Your task to perform on an android device: Play the last video I watched on Youtube Image 0: 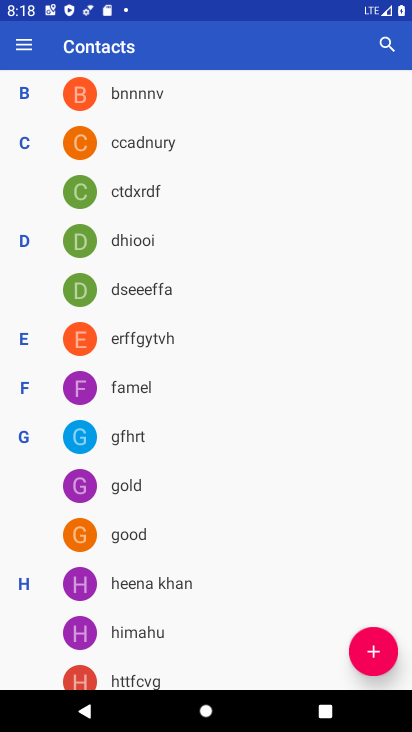
Step 0: press home button
Your task to perform on an android device: Play the last video I watched on Youtube Image 1: 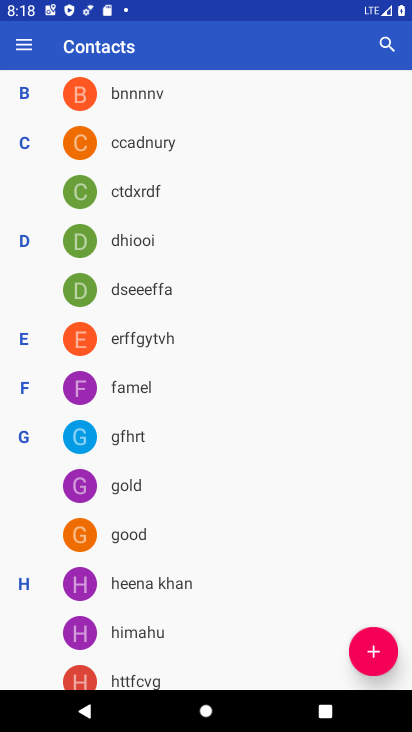
Step 1: press home button
Your task to perform on an android device: Play the last video I watched on Youtube Image 2: 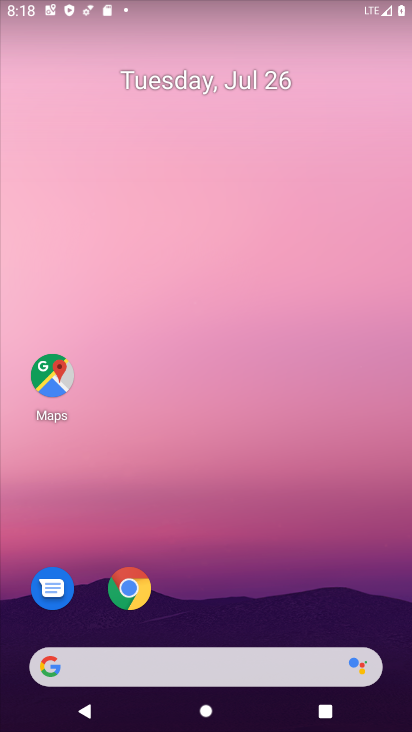
Step 2: drag from (262, 615) to (219, 97)
Your task to perform on an android device: Play the last video I watched on Youtube Image 3: 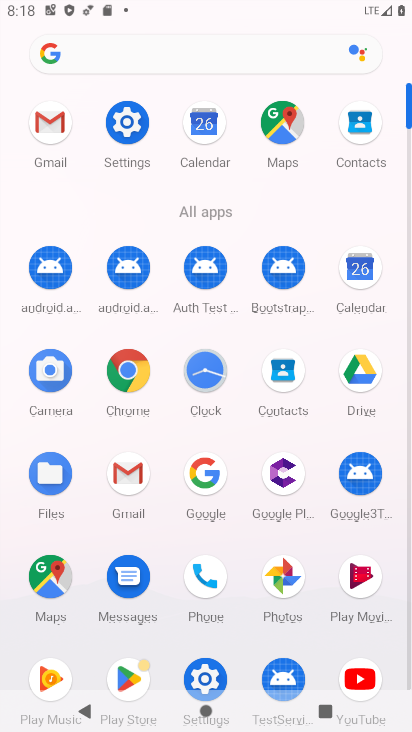
Step 3: click (360, 669)
Your task to perform on an android device: Play the last video I watched on Youtube Image 4: 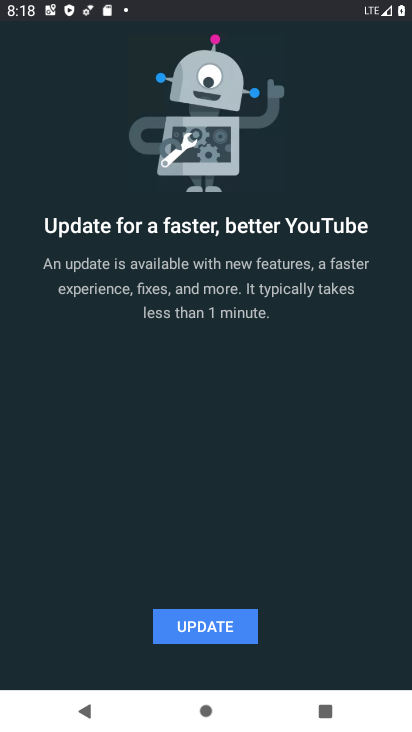
Step 4: click (231, 631)
Your task to perform on an android device: Play the last video I watched on Youtube Image 5: 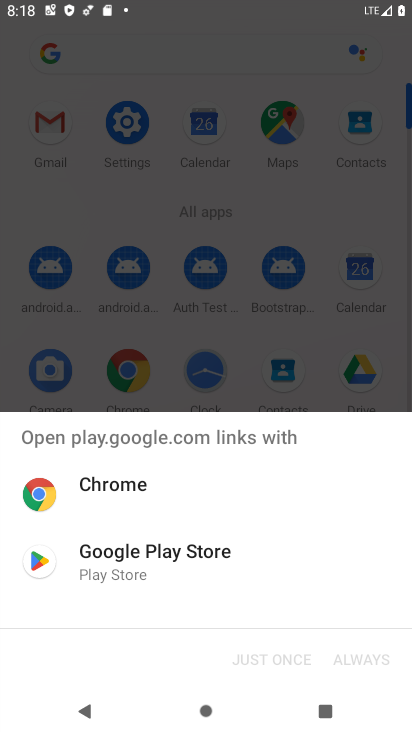
Step 5: click (139, 548)
Your task to perform on an android device: Play the last video I watched on Youtube Image 6: 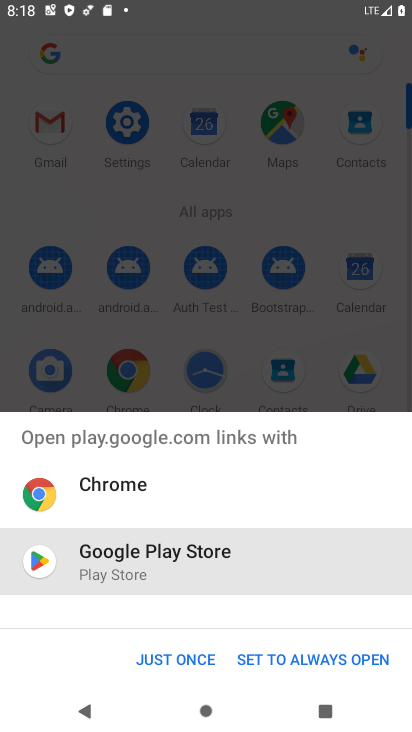
Step 6: click (193, 661)
Your task to perform on an android device: Play the last video I watched on Youtube Image 7: 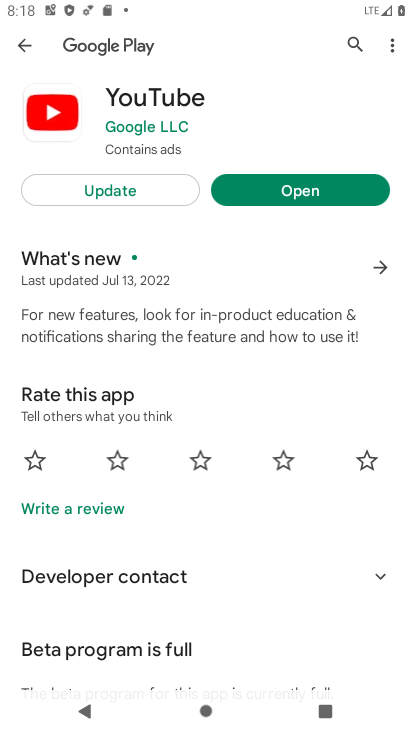
Step 7: click (124, 191)
Your task to perform on an android device: Play the last video I watched on Youtube Image 8: 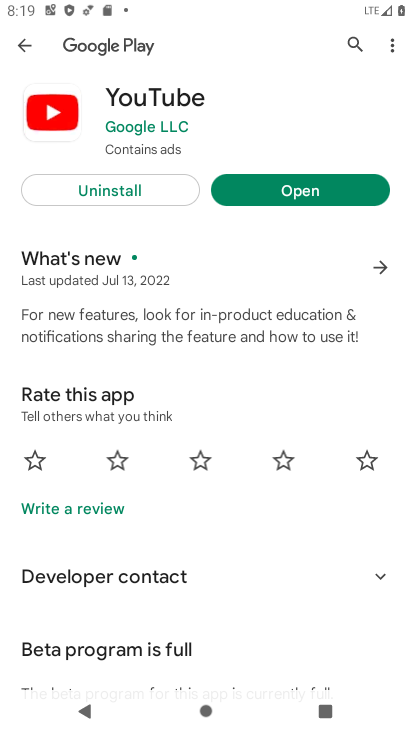
Step 8: click (266, 185)
Your task to perform on an android device: Play the last video I watched on Youtube Image 9: 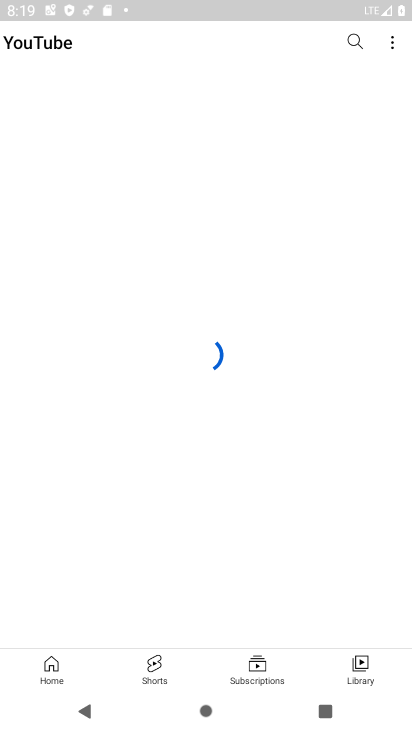
Step 9: click (267, 235)
Your task to perform on an android device: Play the last video I watched on Youtube Image 10: 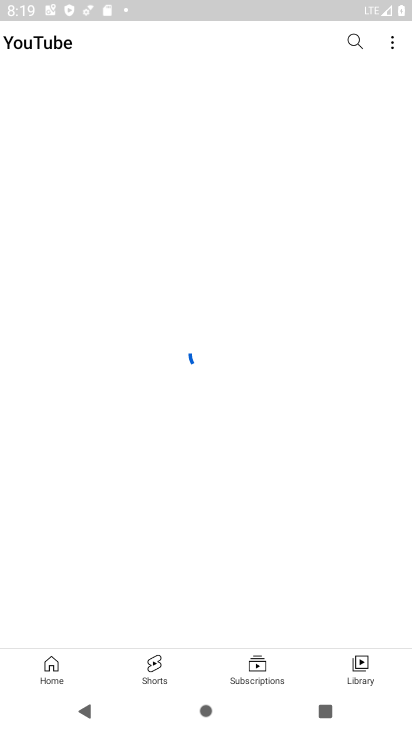
Step 10: click (267, 235)
Your task to perform on an android device: Play the last video I watched on Youtube Image 11: 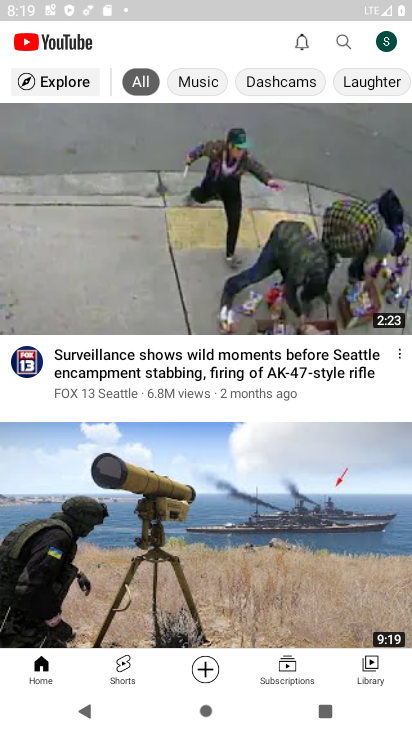
Step 11: click (370, 661)
Your task to perform on an android device: Play the last video I watched on Youtube Image 12: 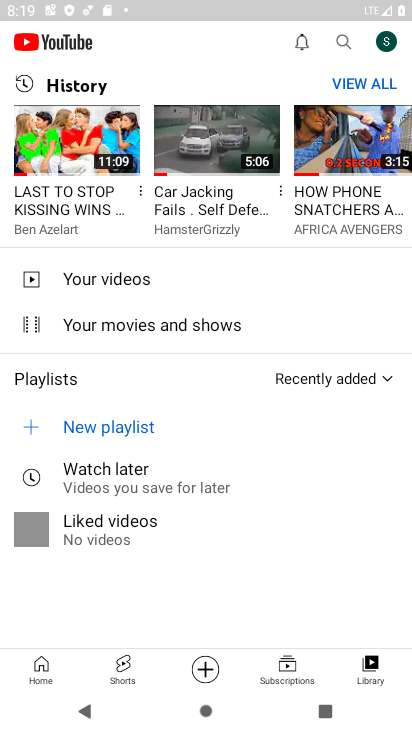
Step 12: click (60, 148)
Your task to perform on an android device: Play the last video I watched on Youtube Image 13: 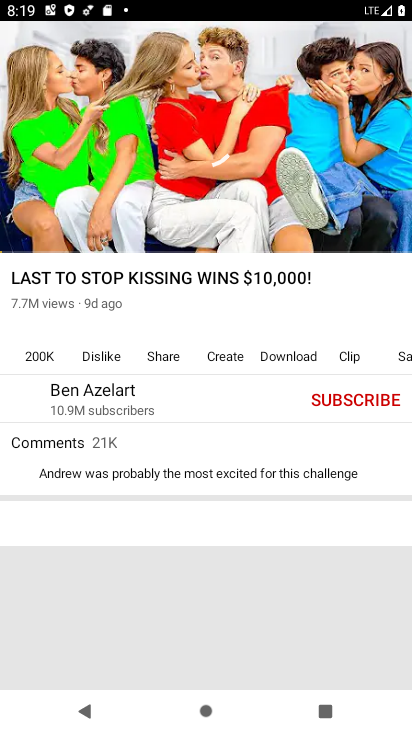
Step 13: task complete